Your task to perform on an android device: open the mobile data screen to see how much data has been used Image 0: 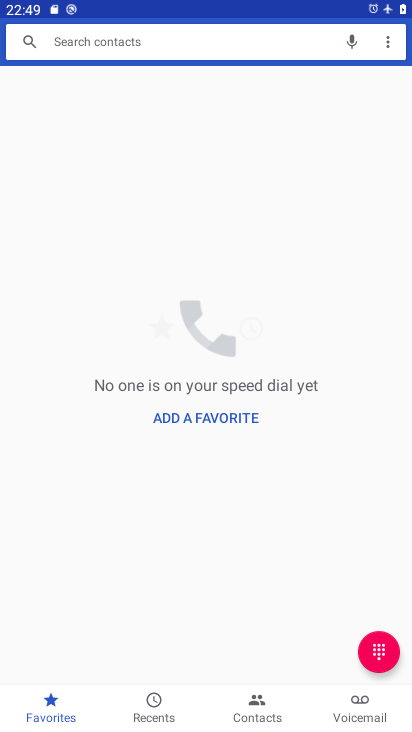
Step 0: press home button
Your task to perform on an android device: open the mobile data screen to see how much data has been used Image 1: 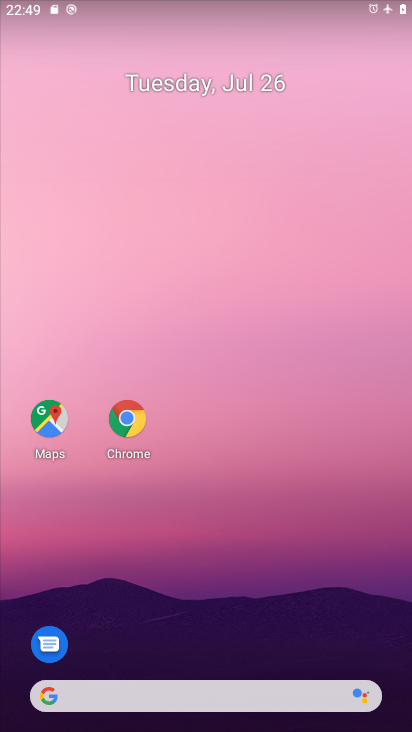
Step 1: drag from (177, 657) to (202, 159)
Your task to perform on an android device: open the mobile data screen to see how much data has been used Image 2: 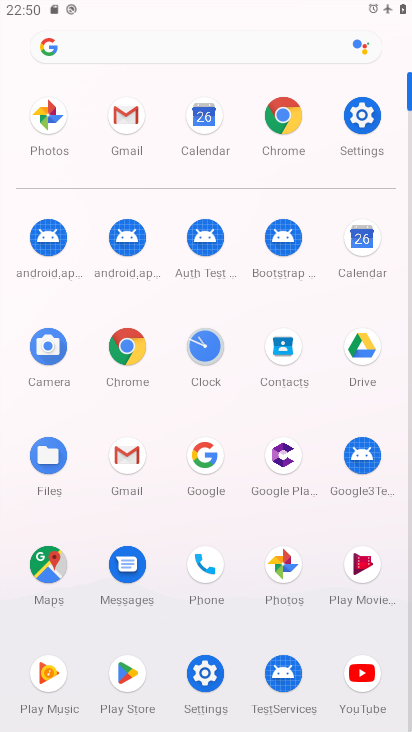
Step 2: click (356, 108)
Your task to perform on an android device: open the mobile data screen to see how much data has been used Image 3: 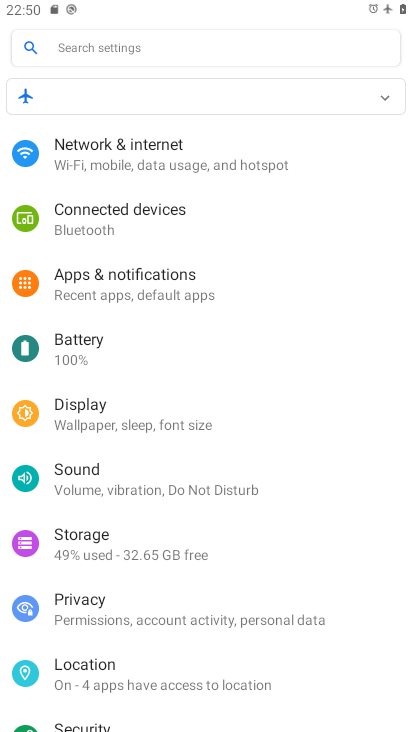
Step 3: click (159, 151)
Your task to perform on an android device: open the mobile data screen to see how much data has been used Image 4: 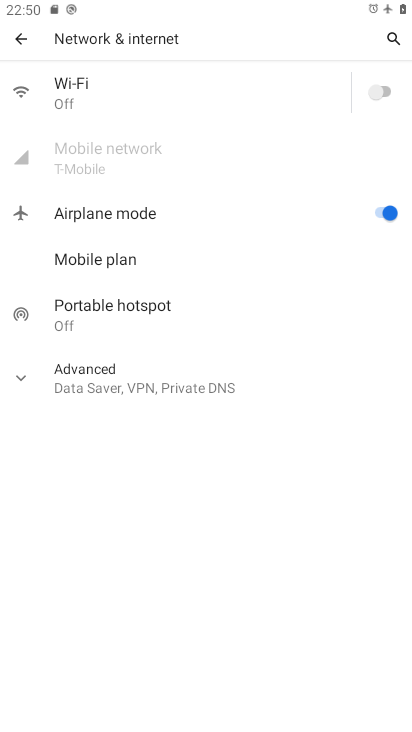
Step 4: click (117, 150)
Your task to perform on an android device: open the mobile data screen to see how much data has been used Image 5: 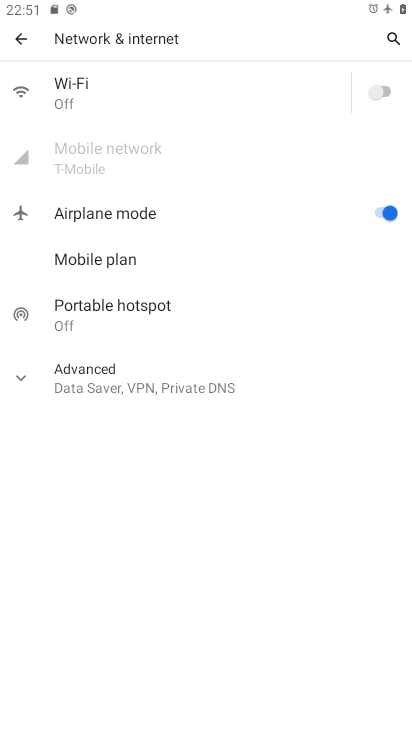
Step 5: task complete